Your task to perform on an android device: turn off javascript in the chrome app Image 0: 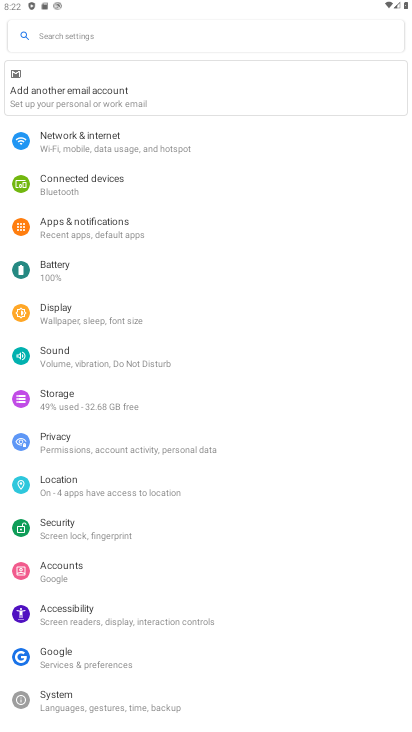
Step 0: press home button
Your task to perform on an android device: turn off javascript in the chrome app Image 1: 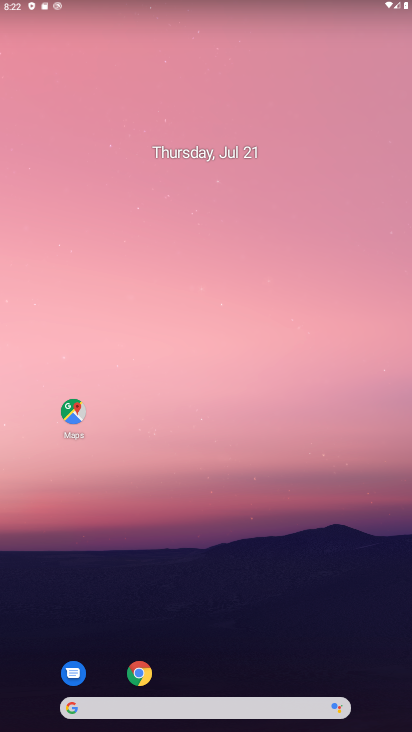
Step 1: click (139, 677)
Your task to perform on an android device: turn off javascript in the chrome app Image 2: 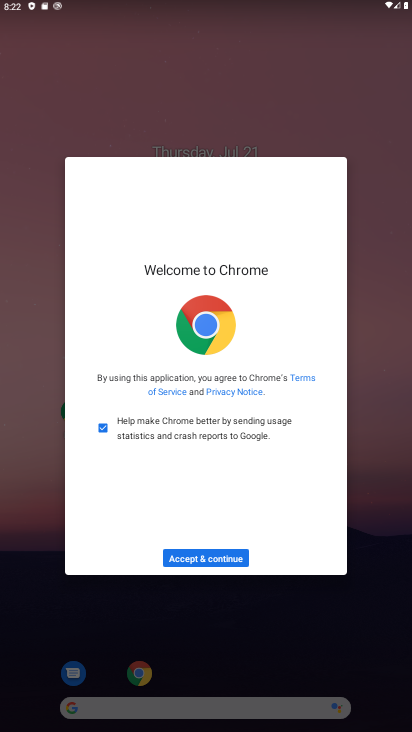
Step 2: click (180, 555)
Your task to perform on an android device: turn off javascript in the chrome app Image 3: 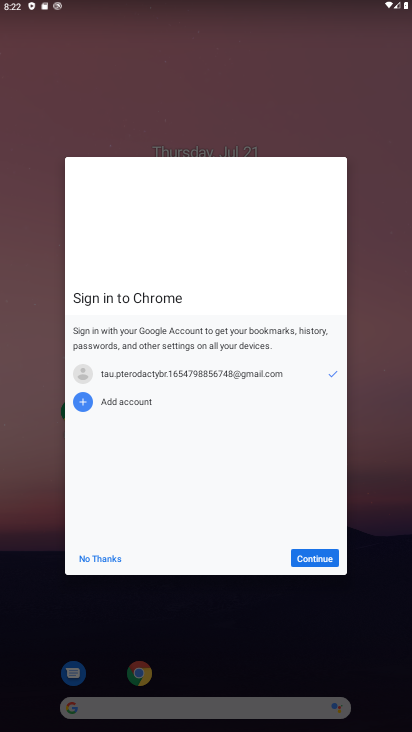
Step 3: click (299, 557)
Your task to perform on an android device: turn off javascript in the chrome app Image 4: 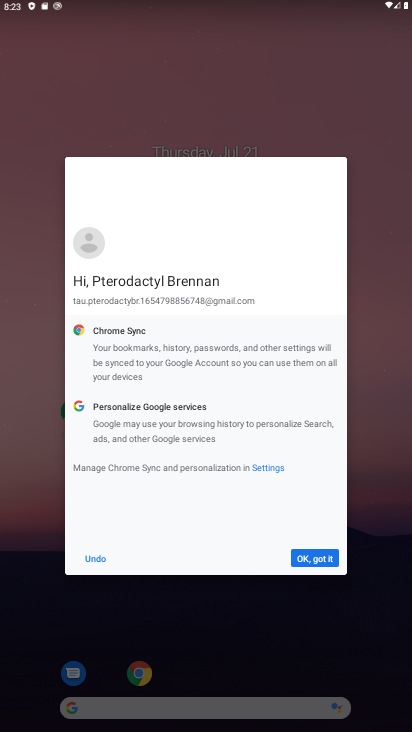
Step 4: click (300, 558)
Your task to perform on an android device: turn off javascript in the chrome app Image 5: 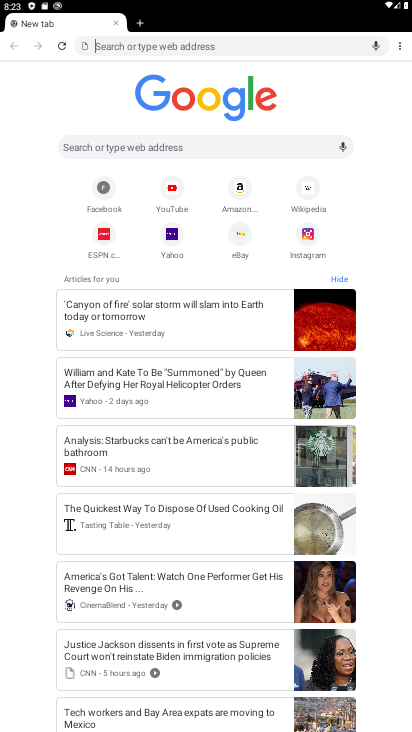
Step 5: click (401, 53)
Your task to perform on an android device: turn off javascript in the chrome app Image 6: 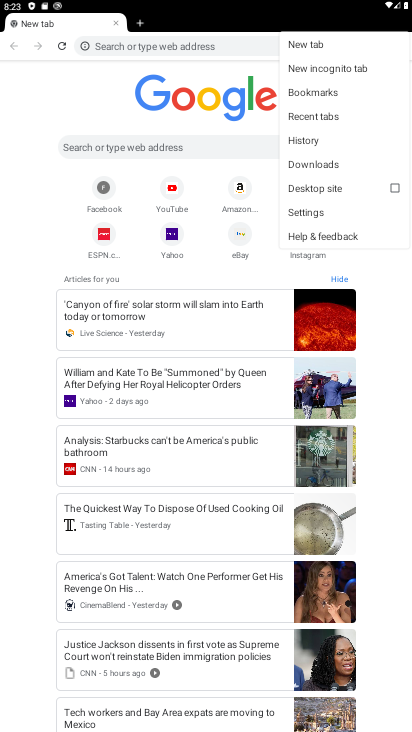
Step 6: click (319, 212)
Your task to perform on an android device: turn off javascript in the chrome app Image 7: 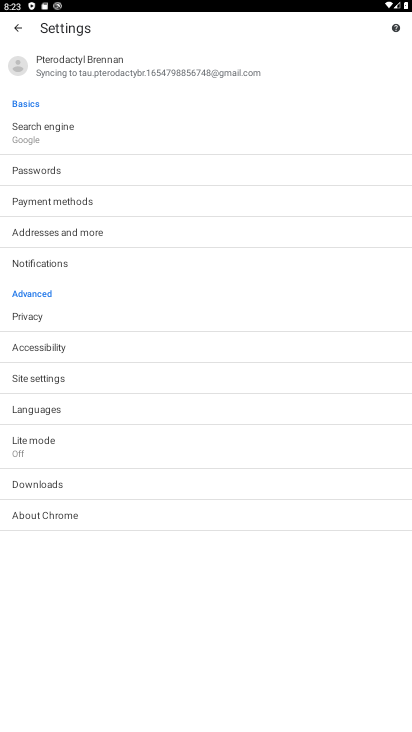
Step 7: click (35, 380)
Your task to perform on an android device: turn off javascript in the chrome app Image 8: 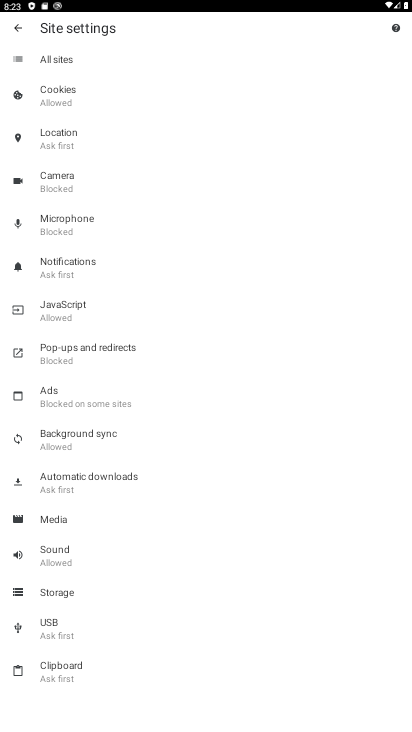
Step 8: click (53, 306)
Your task to perform on an android device: turn off javascript in the chrome app Image 9: 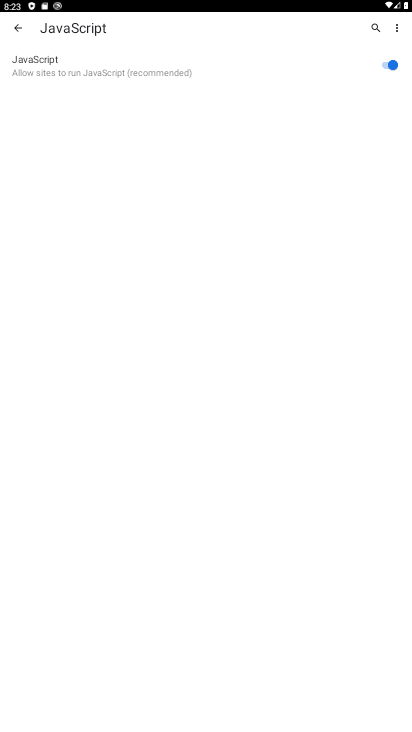
Step 9: click (387, 64)
Your task to perform on an android device: turn off javascript in the chrome app Image 10: 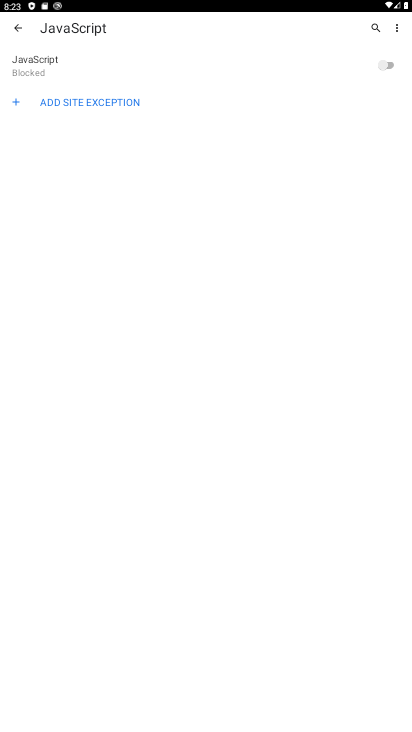
Step 10: task complete